Your task to perform on an android device: Show me popular games on the Play Store Image 0: 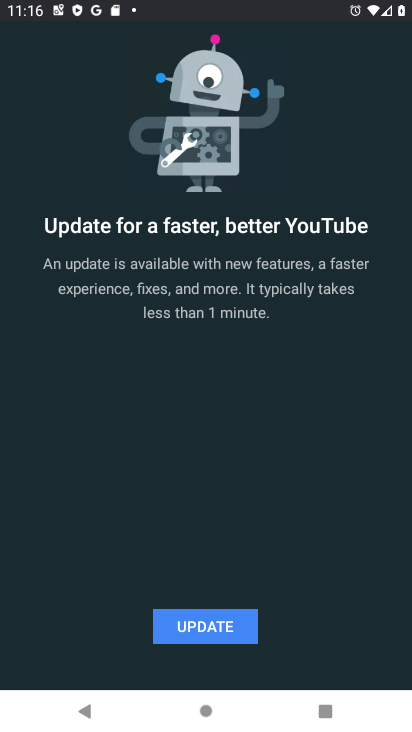
Step 0: press home button
Your task to perform on an android device: Show me popular games on the Play Store Image 1: 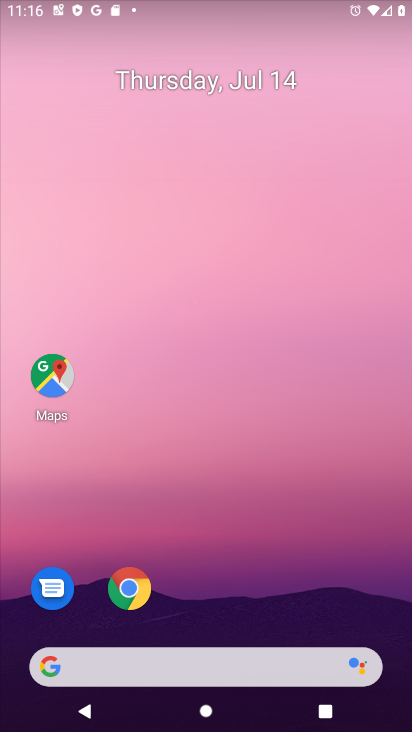
Step 1: drag from (238, 621) to (368, 63)
Your task to perform on an android device: Show me popular games on the Play Store Image 2: 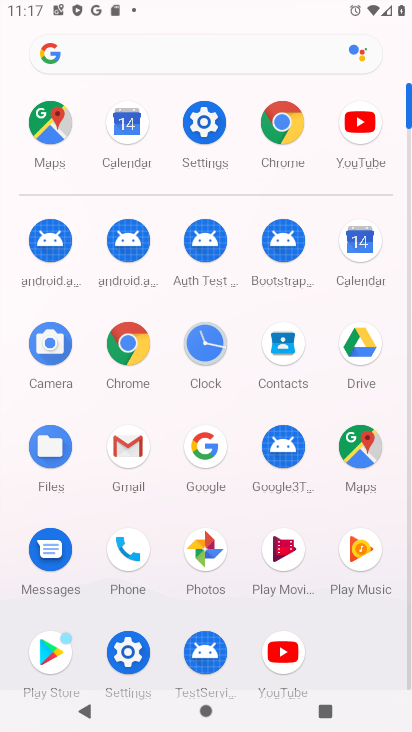
Step 2: click (66, 630)
Your task to perform on an android device: Show me popular games on the Play Store Image 3: 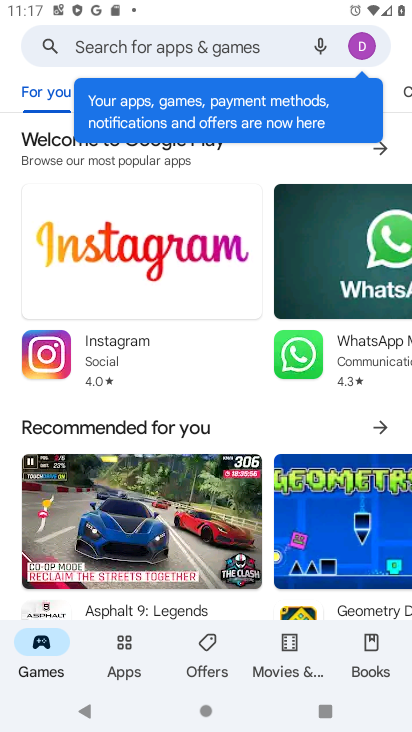
Step 3: click (164, 50)
Your task to perform on an android device: Show me popular games on the Play Store Image 4: 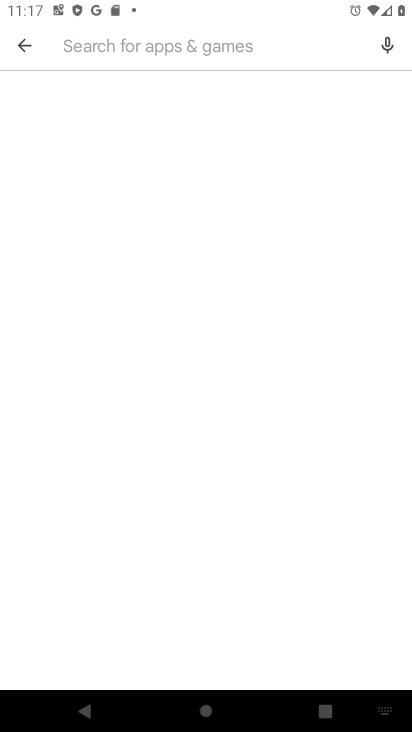
Step 4: type " popular games"
Your task to perform on an android device: Show me popular games on the Play Store Image 5: 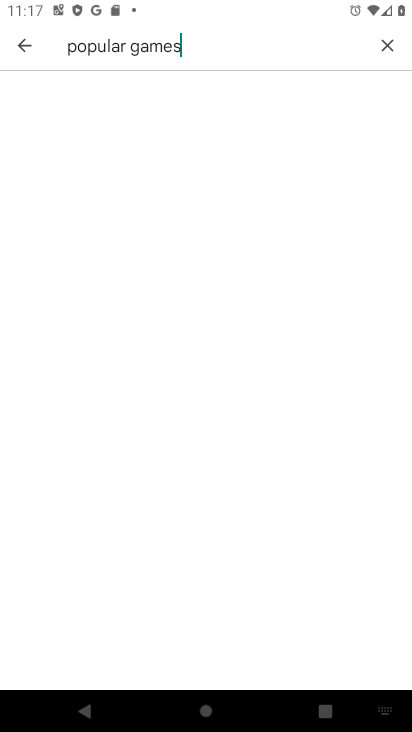
Step 5: type ""
Your task to perform on an android device: Show me popular games on the Play Store Image 6: 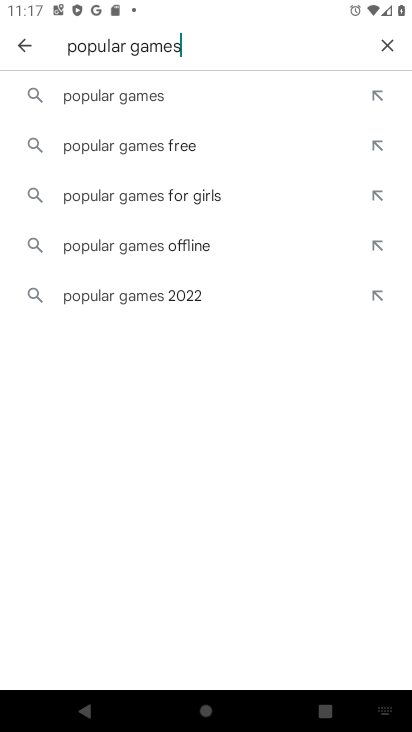
Step 6: click (149, 93)
Your task to perform on an android device: Show me popular games on the Play Store Image 7: 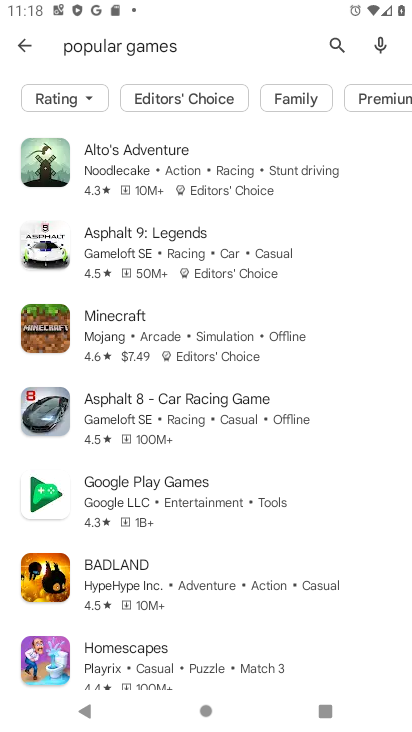
Step 7: task complete